Your task to perform on an android device: turn smart compose on in the gmail app Image 0: 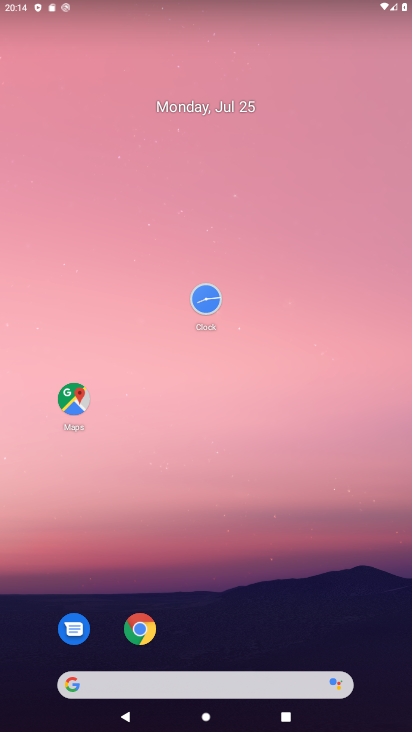
Step 0: drag from (228, 636) to (237, 33)
Your task to perform on an android device: turn smart compose on in the gmail app Image 1: 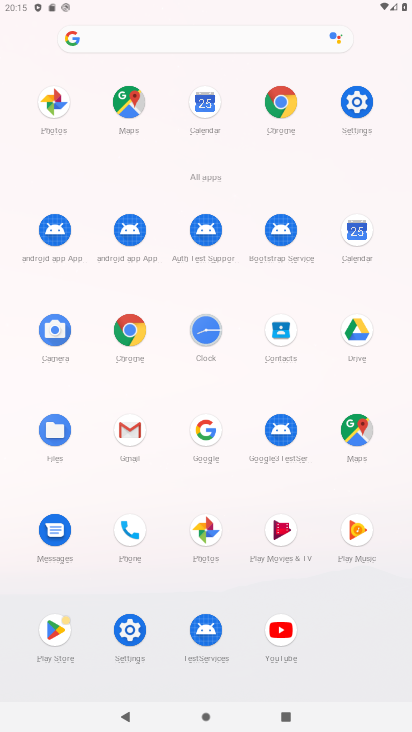
Step 1: click (129, 435)
Your task to perform on an android device: turn smart compose on in the gmail app Image 2: 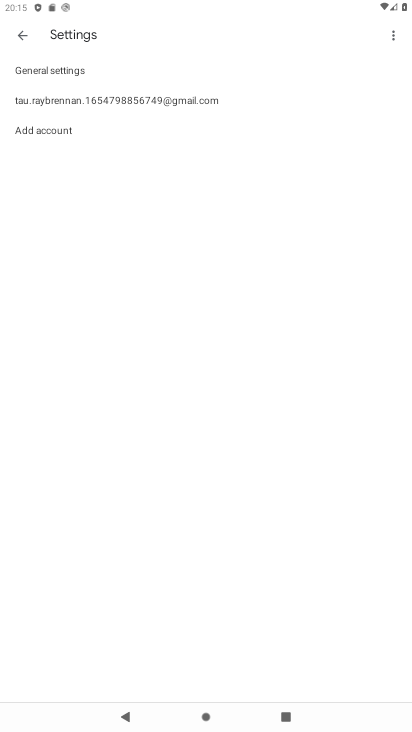
Step 2: click (113, 97)
Your task to perform on an android device: turn smart compose on in the gmail app Image 3: 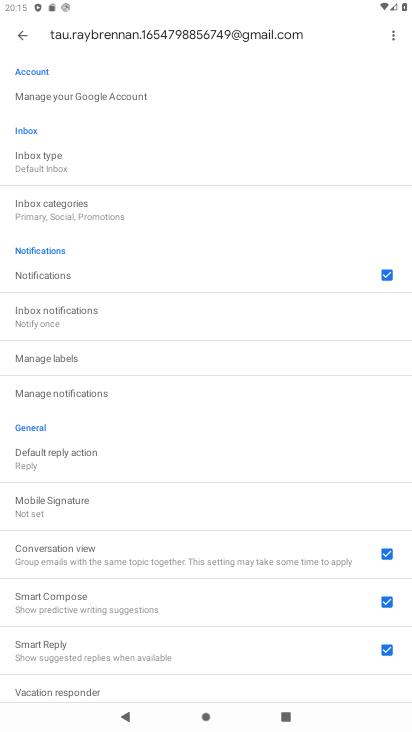
Step 3: task complete